Your task to perform on an android device: add a contact in the contacts app Image 0: 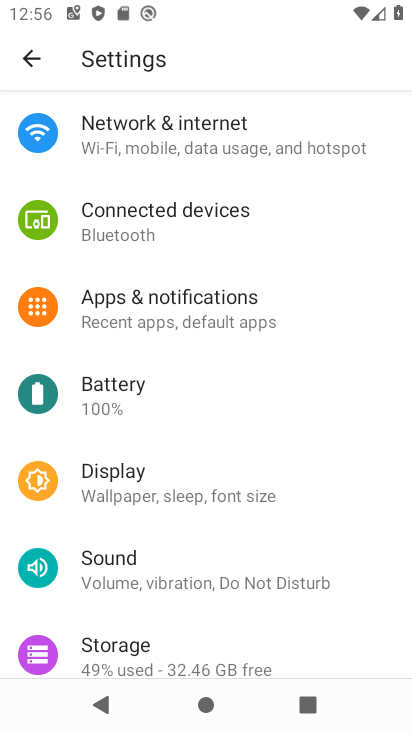
Step 0: press home button
Your task to perform on an android device: add a contact in the contacts app Image 1: 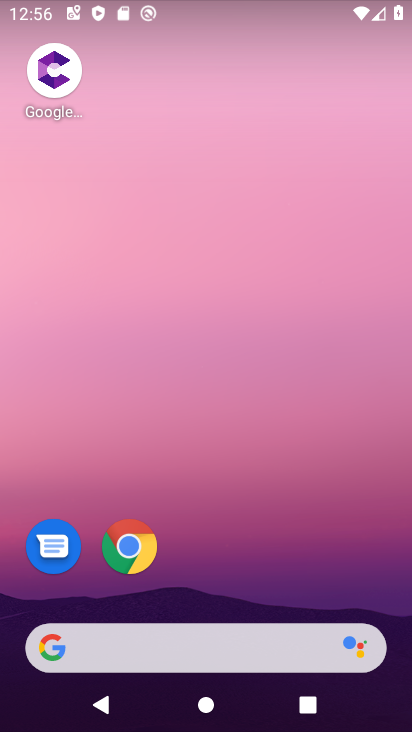
Step 1: drag from (292, 541) to (229, 178)
Your task to perform on an android device: add a contact in the contacts app Image 2: 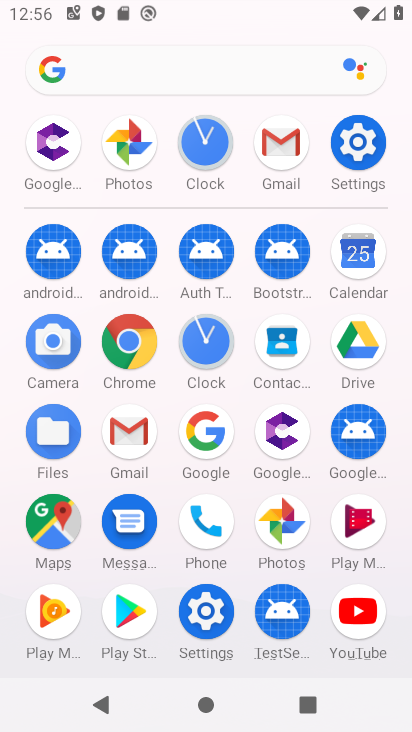
Step 2: click (281, 367)
Your task to perform on an android device: add a contact in the contacts app Image 3: 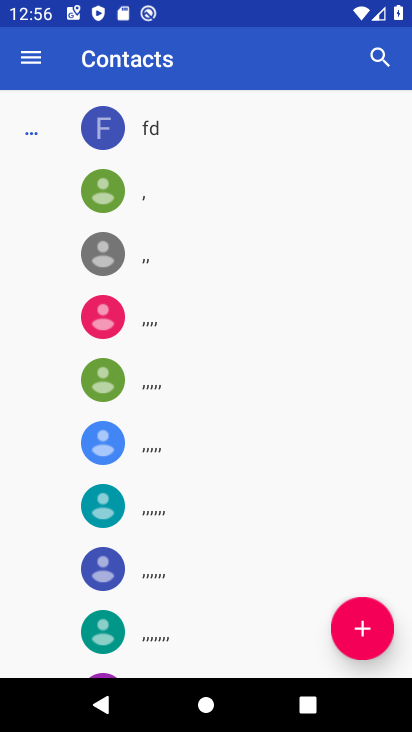
Step 3: task complete